Your task to perform on an android device: Open eBay Image 0: 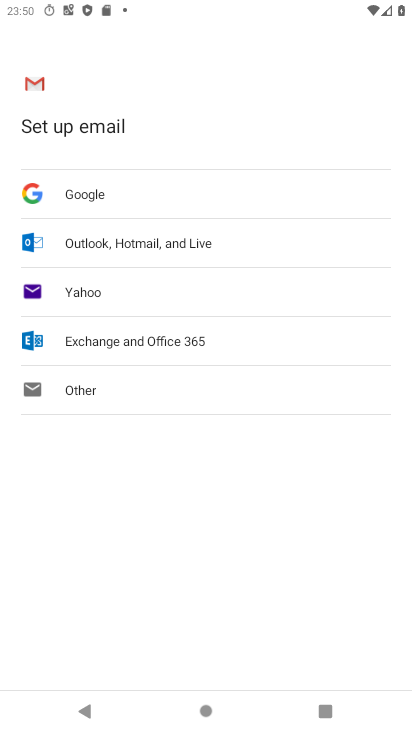
Step 0: press home button
Your task to perform on an android device: Open eBay Image 1: 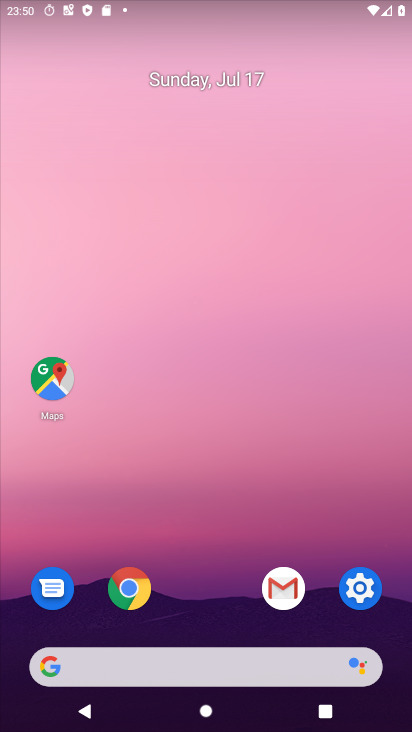
Step 1: click (135, 584)
Your task to perform on an android device: Open eBay Image 2: 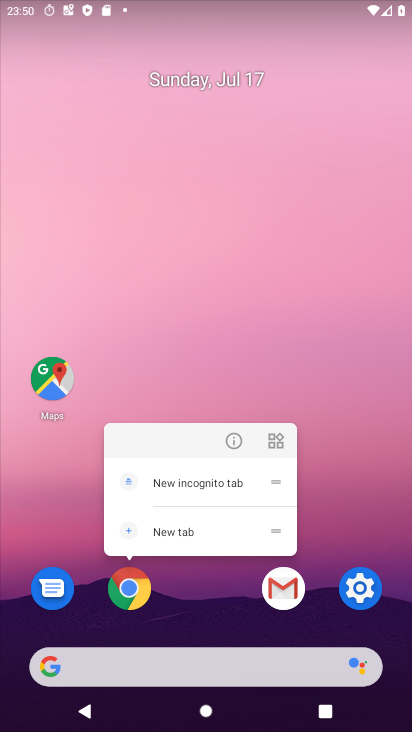
Step 2: click (135, 584)
Your task to perform on an android device: Open eBay Image 3: 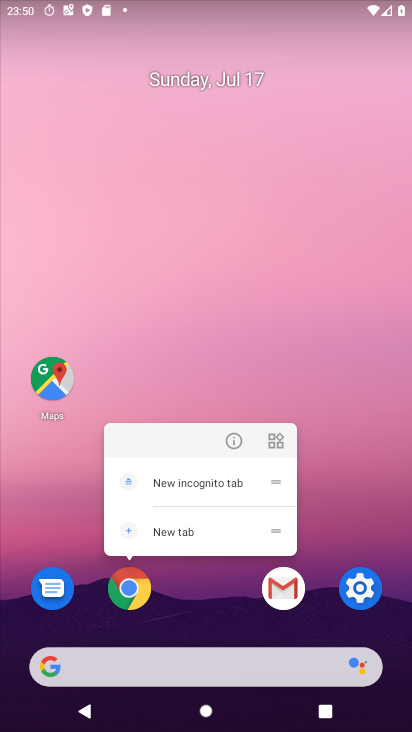
Step 3: click (130, 593)
Your task to perform on an android device: Open eBay Image 4: 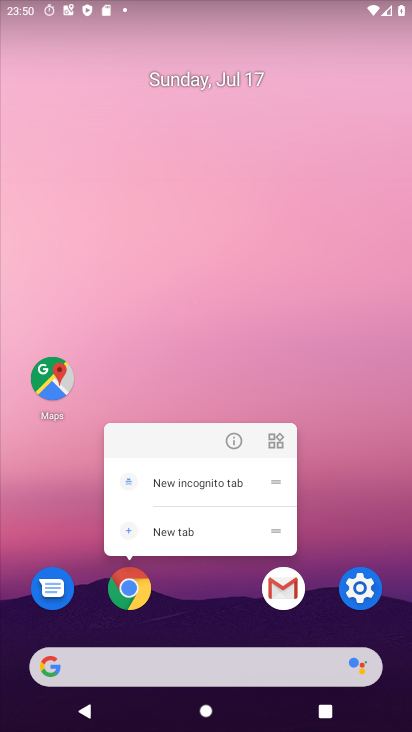
Step 4: click (133, 583)
Your task to perform on an android device: Open eBay Image 5: 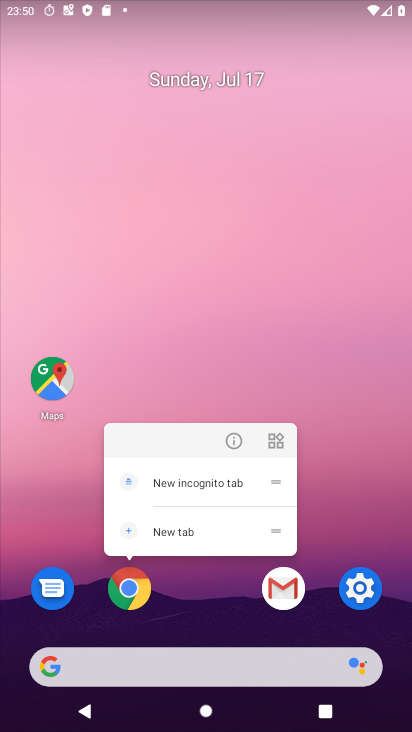
Step 5: click (144, 582)
Your task to perform on an android device: Open eBay Image 6: 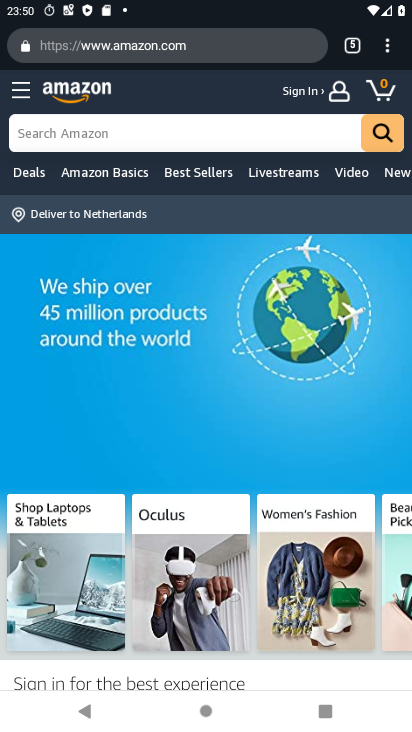
Step 6: click (358, 44)
Your task to perform on an android device: Open eBay Image 7: 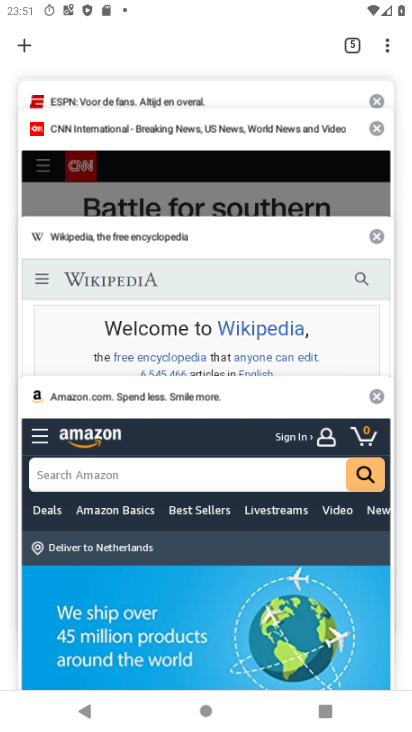
Step 7: click (22, 64)
Your task to perform on an android device: Open eBay Image 8: 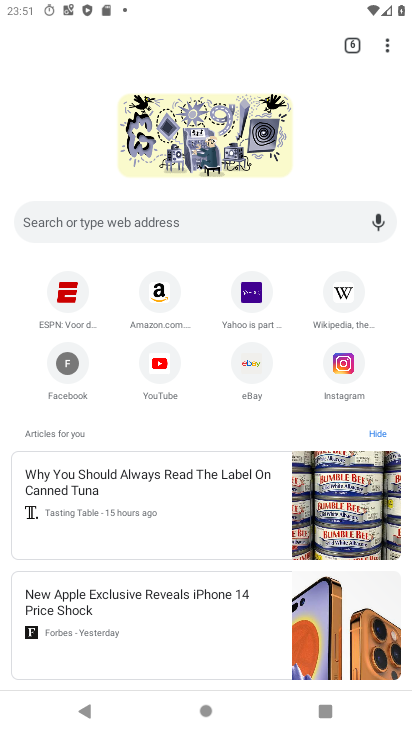
Step 8: click (251, 373)
Your task to perform on an android device: Open eBay Image 9: 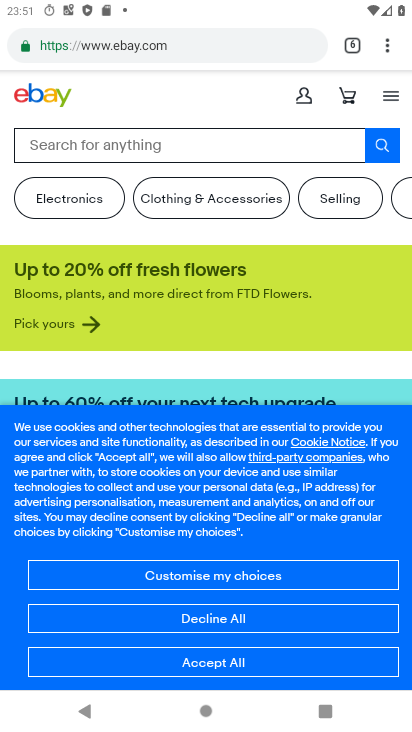
Step 9: task complete